Your task to perform on an android device: Open Chrome and go to settings Image 0: 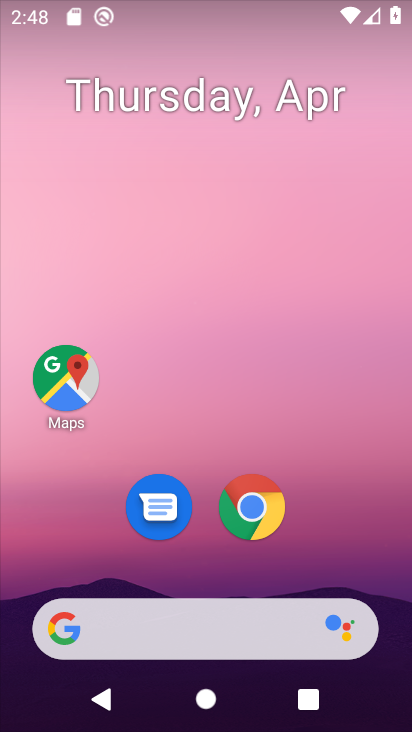
Step 0: click (247, 502)
Your task to perform on an android device: Open Chrome and go to settings Image 1: 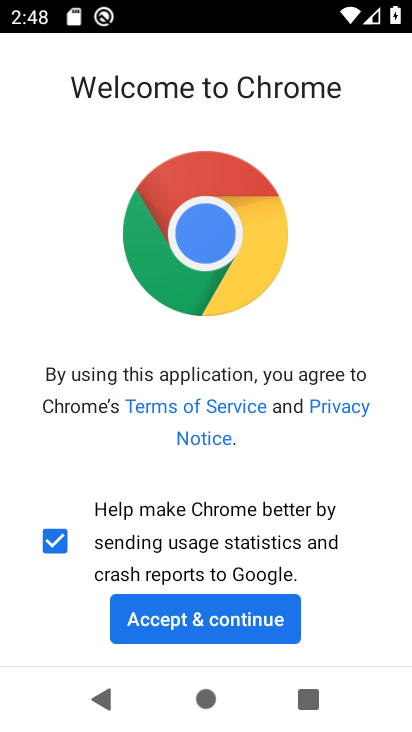
Step 1: click (233, 614)
Your task to perform on an android device: Open Chrome and go to settings Image 2: 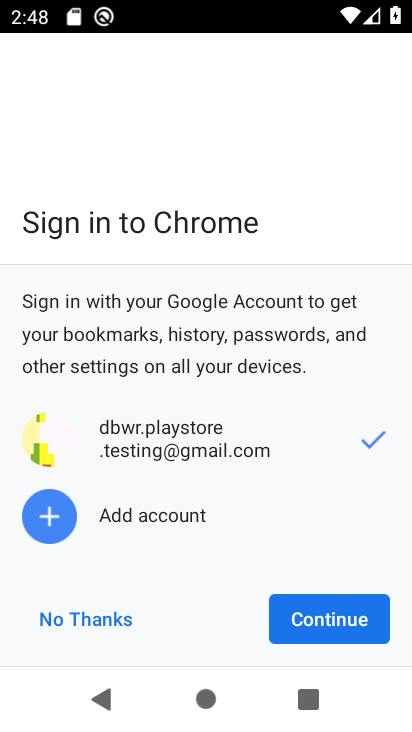
Step 2: click (311, 610)
Your task to perform on an android device: Open Chrome and go to settings Image 3: 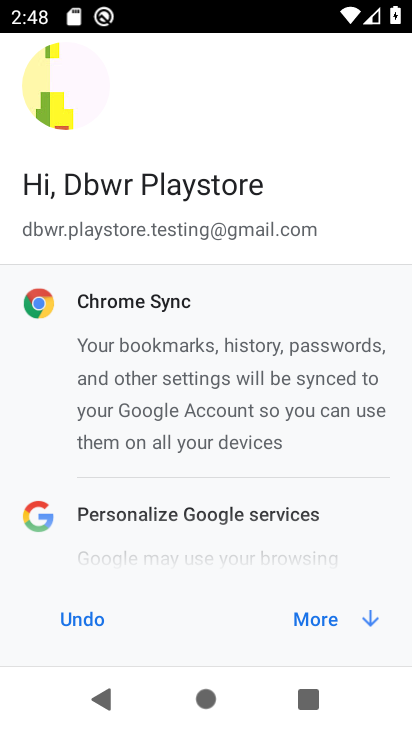
Step 3: click (308, 625)
Your task to perform on an android device: Open Chrome and go to settings Image 4: 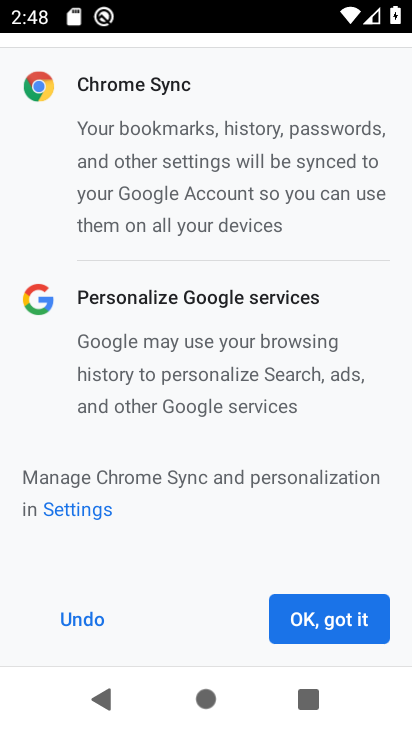
Step 4: click (306, 625)
Your task to perform on an android device: Open Chrome and go to settings Image 5: 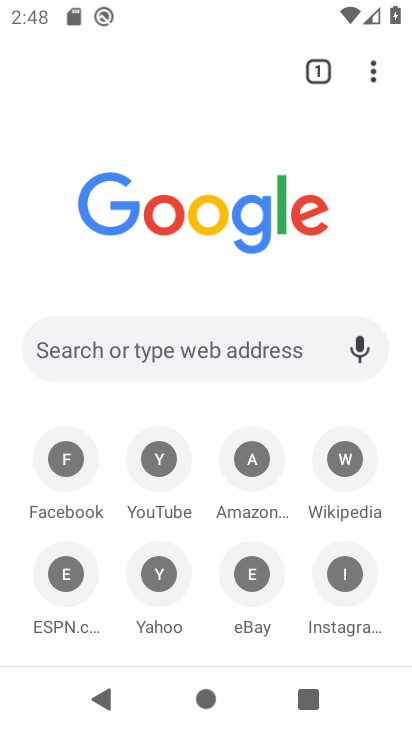
Step 5: click (378, 83)
Your task to perform on an android device: Open Chrome and go to settings Image 6: 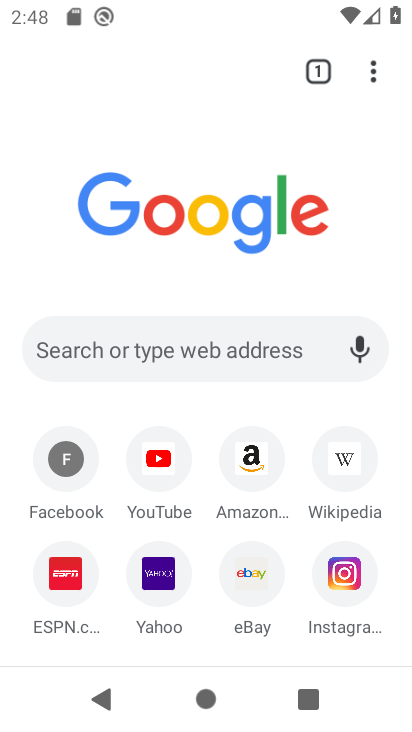
Step 6: click (372, 78)
Your task to perform on an android device: Open Chrome and go to settings Image 7: 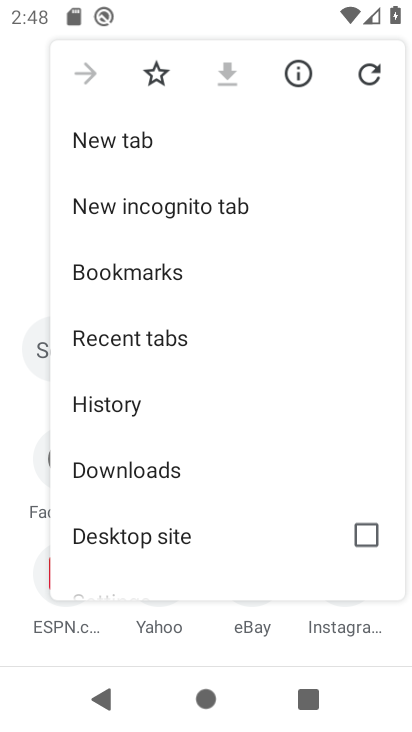
Step 7: drag from (140, 444) to (171, 228)
Your task to perform on an android device: Open Chrome and go to settings Image 8: 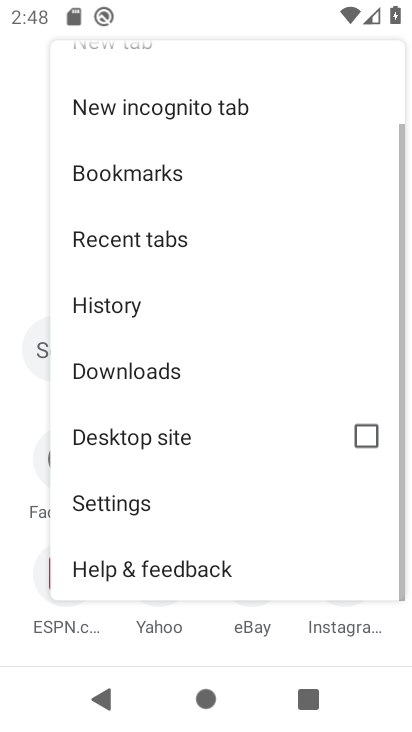
Step 8: click (152, 509)
Your task to perform on an android device: Open Chrome and go to settings Image 9: 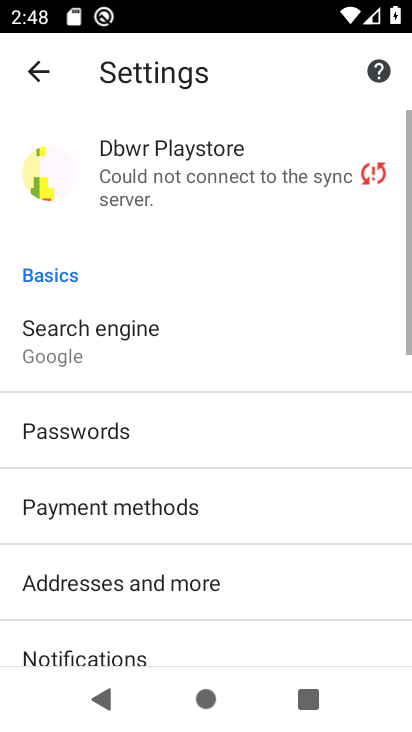
Step 9: task complete